Your task to perform on an android device: find photos in the google photos app Image 0: 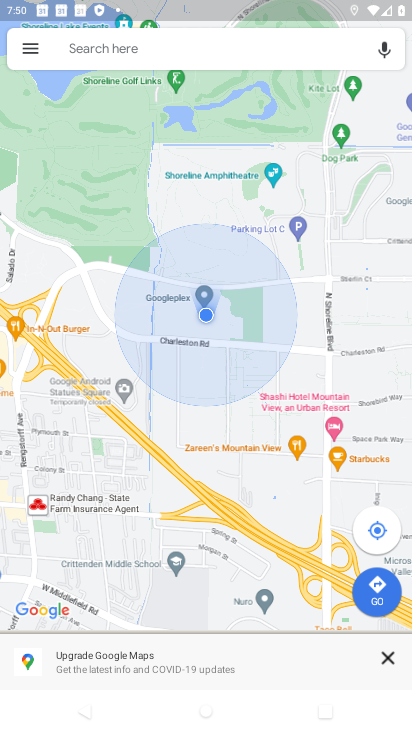
Step 0: press home button
Your task to perform on an android device: find photos in the google photos app Image 1: 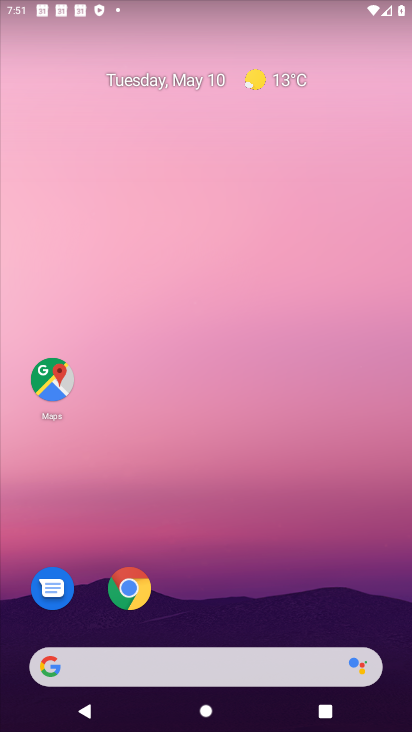
Step 1: drag from (175, 628) to (243, 65)
Your task to perform on an android device: find photos in the google photos app Image 2: 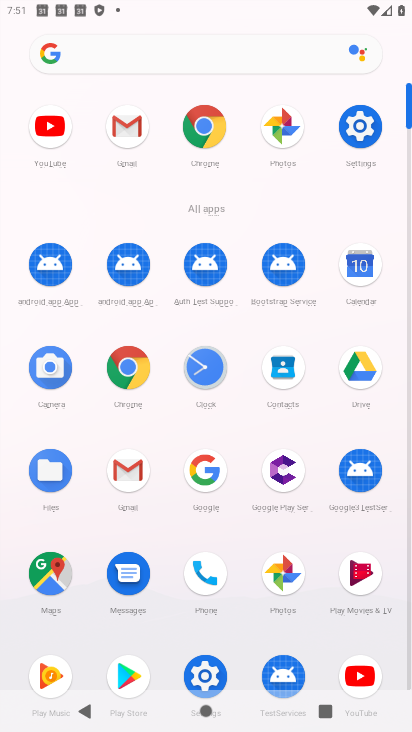
Step 2: click (275, 575)
Your task to perform on an android device: find photos in the google photos app Image 3: 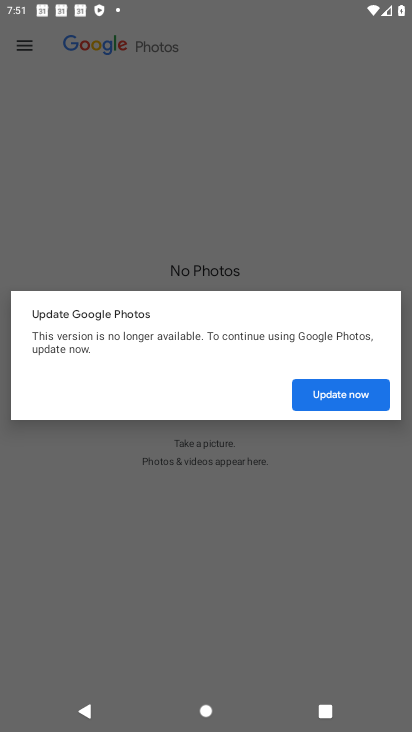
Step 3: click (339, 402)
Your task to perform on an android device: find photos in the google photos app Image 4: 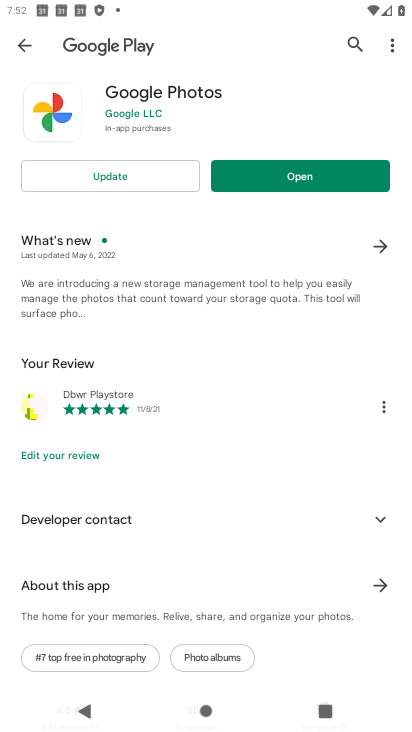
Step 4: click (309, 177)
Your task to perform on an android device: find photos in the google photos app Image 5: 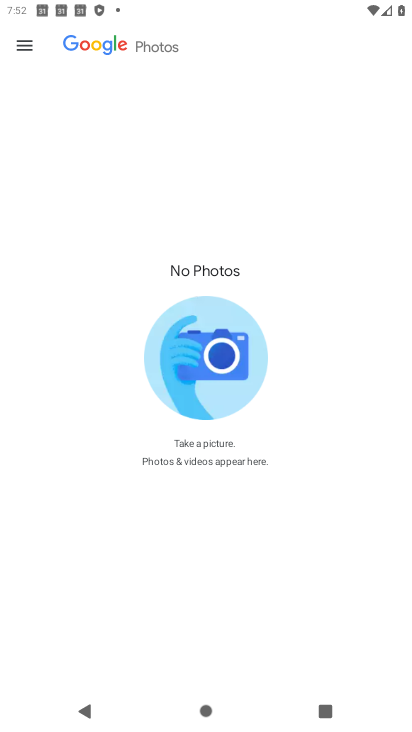
Step 5: click (19, 42)
Your task to perform on an android device: find photos in the google photos app Image 6: 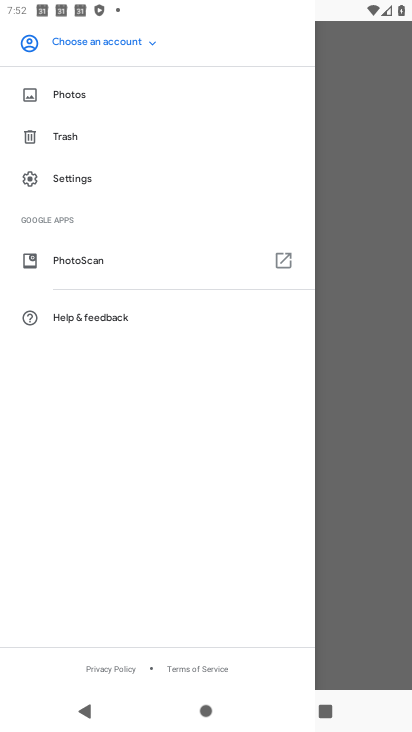
Step 6: click (126, 45)
Your task to perform on an android device: find photos in the google photos app Image 7: 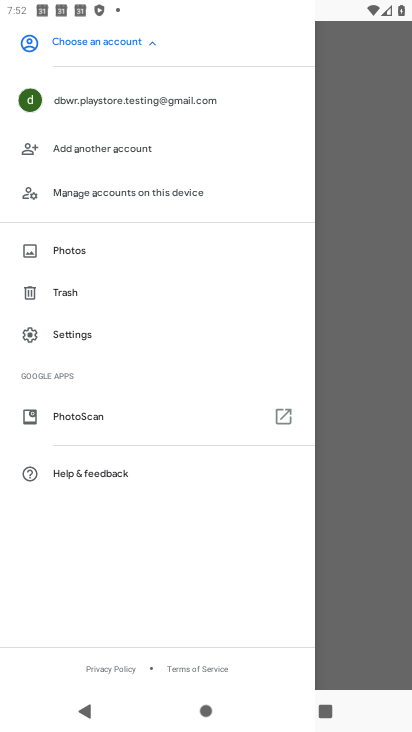
Step 7: click (117, 104)
Your task to perform on an android device: find photos in the google photos app Image 8: 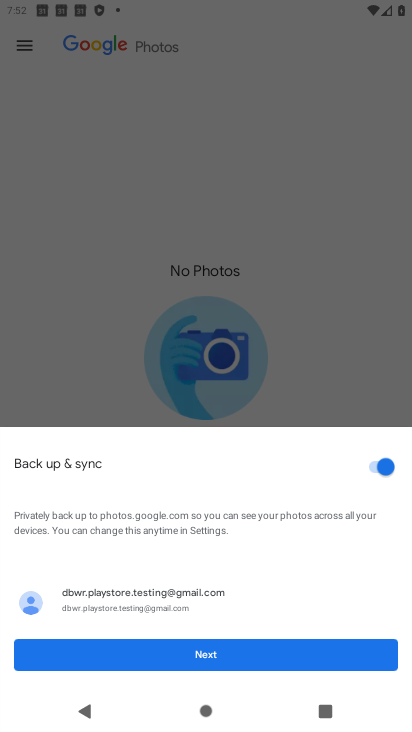
Step 8: click (230, 657)
Your task to perform on an android device: find photos in the google photos app Image 9: 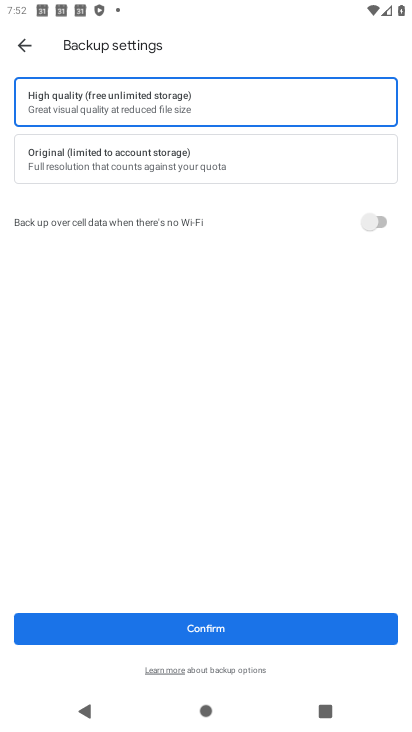
Step 9: click (201, 623)
Your task to perform on an android device: find photos in the google photos app Image 10: 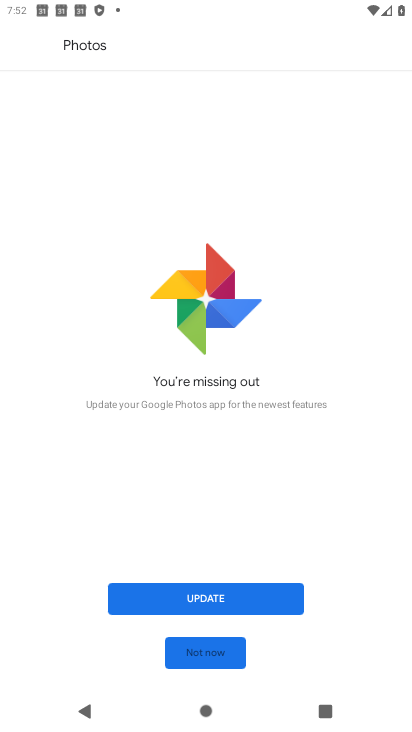
Step 10: click (215, 649)
Your task to perform on an android device: find photos in the google photos app Image 11: 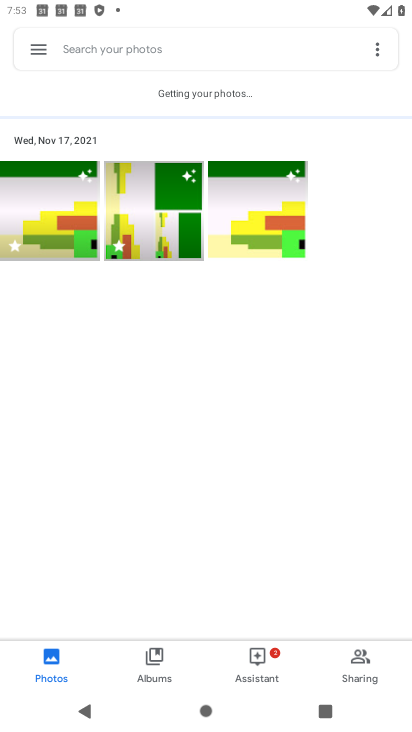
Step 11: task complete